Your task to perform on an android device: turn on airplane mode Image 0: 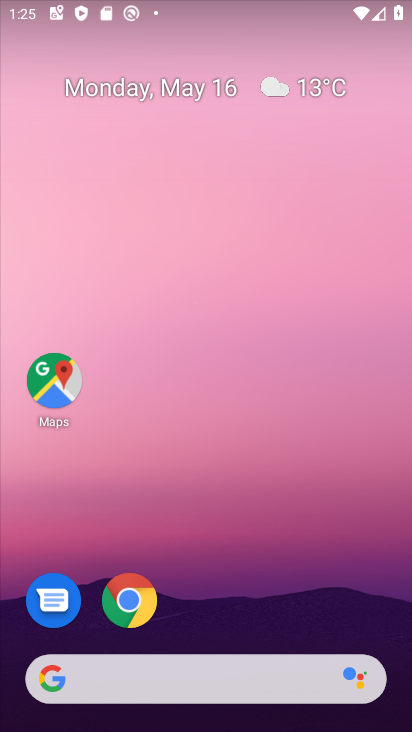
Step 0: click (59, 82)
Your task to perform on an android device: turn on airplane mode Image 1: 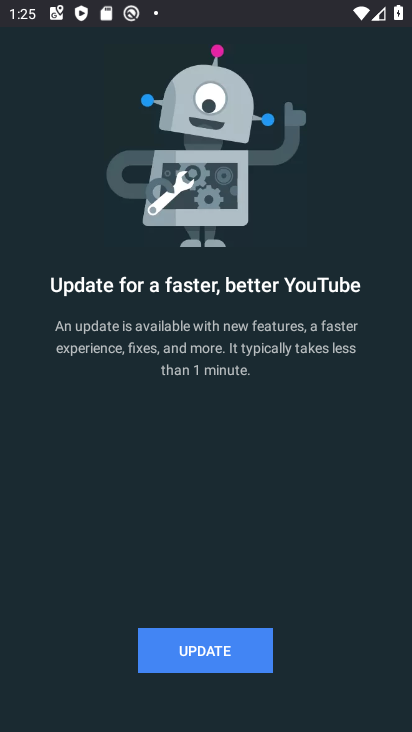
Step 1: press home button
Your task to perform on an android device: turn on airplane mode Image 2: 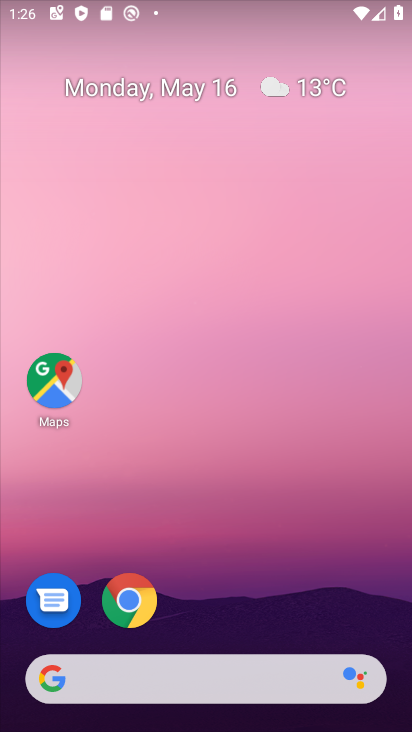
Step 2: drag from (240, 484) to (196, 119)
Your task to perform on an android device: turn on airplane mode Image 3: 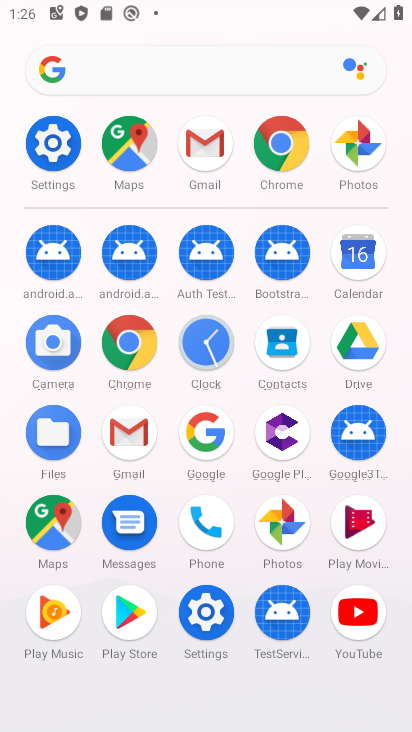
Step 3: click (200, 618)
Your task to perform on an android device: turn on airplane mode Image 4: 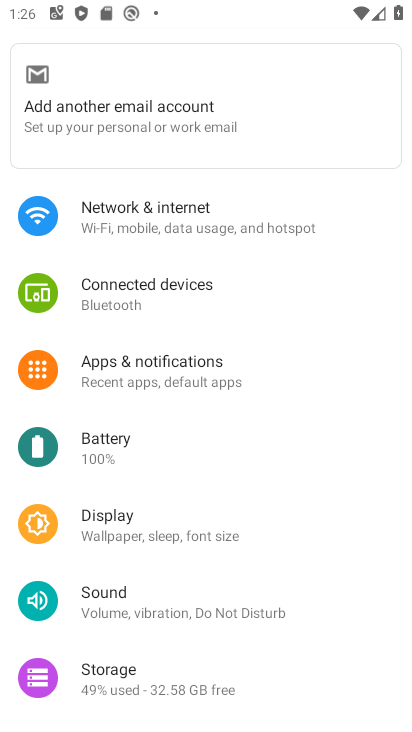
Step 4: click (178, 228)
Your task to perform on an android device: turn on airplane mode Image 5: 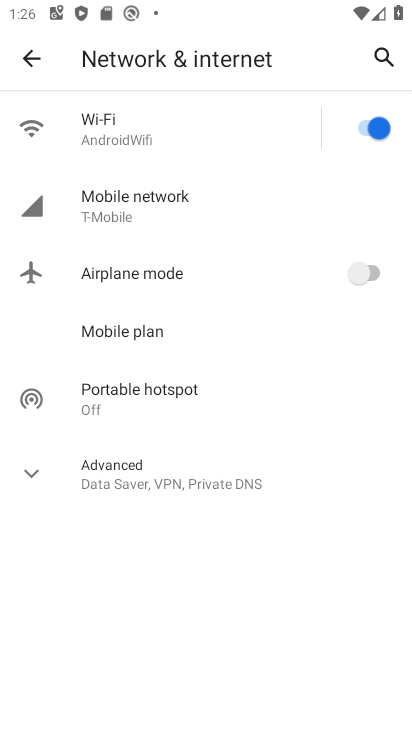
Step 5: click (365, 273)
Your task to perform on an android device: turn on airplane mode Image 6: 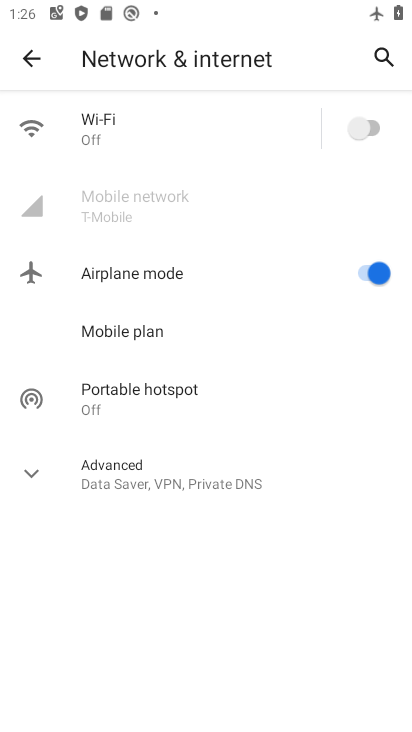
Step 6: task complete